Your task to perform on an android device: change your default location settings in chrome Image 0: 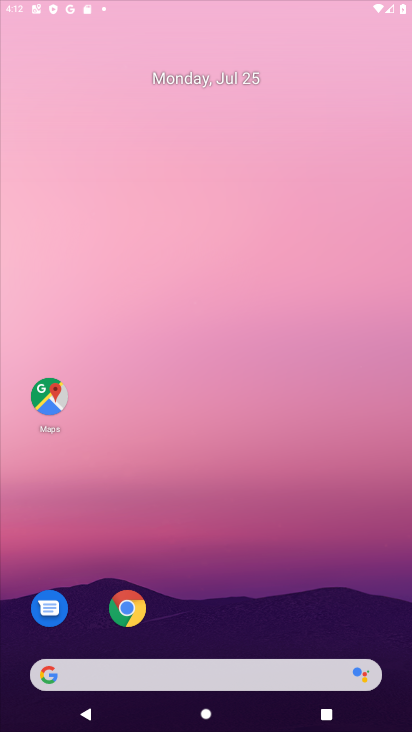
Step 0: press home button
Your task to perform on an android device: change your default location settings in chrome Image 1: 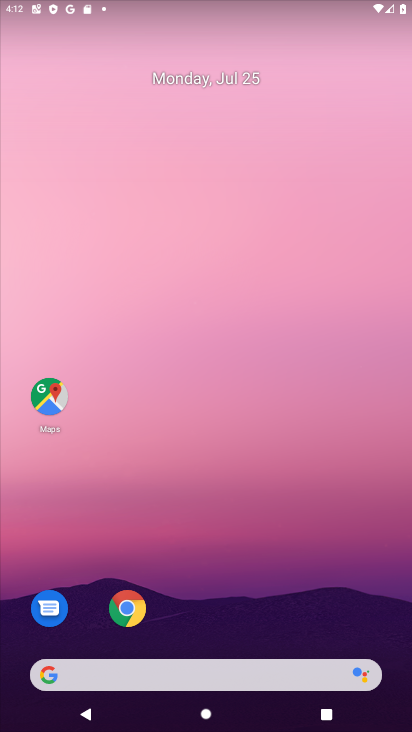
Step 1: click (126, 604)
Your task to perform on an android device: change your default location settings in chrome Image 2: 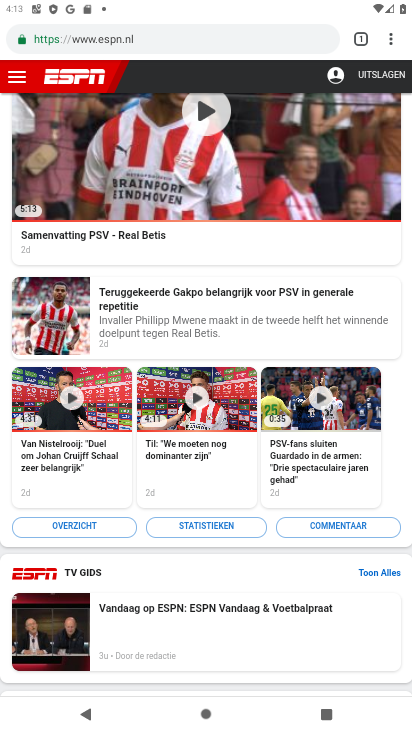
Step 2: click (389, 35)
Your task to perform on an android device: change your default location settings in chrome Image 3: 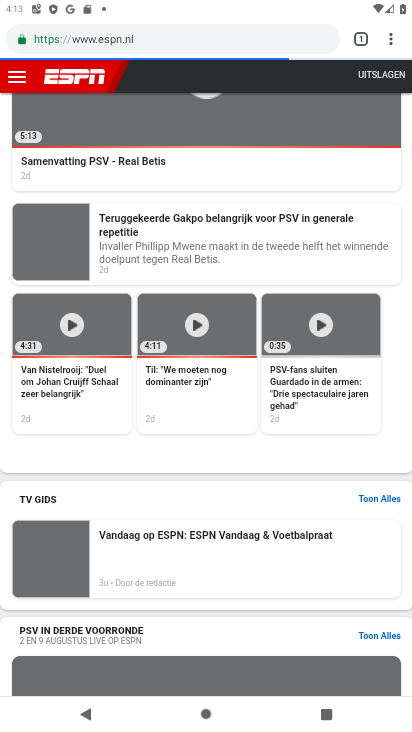
Step 3: click (392, 42)
Your task to perform on an android device: change your default location settings in chrome Image 4: 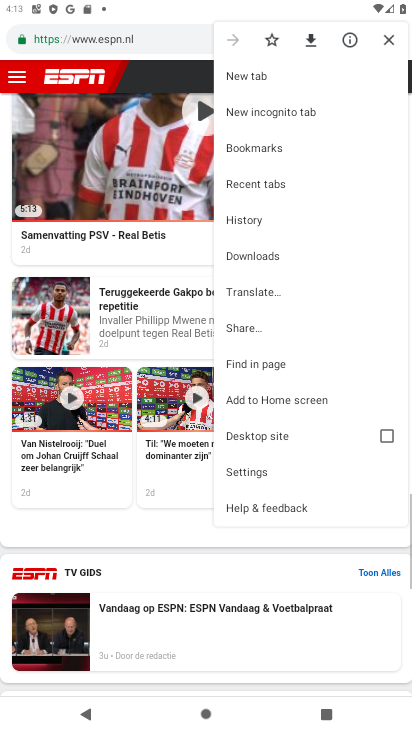
Step 4: click (278, 471)
Your task to perform on an android device: change your default location settings in chrome Image 5: 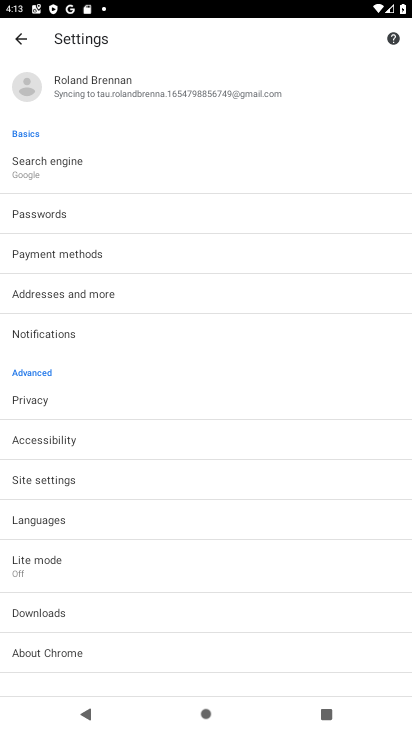
Step 5: click (80, 484)
Your task to perform on an android device: change your default location settings in chrome Image 6: 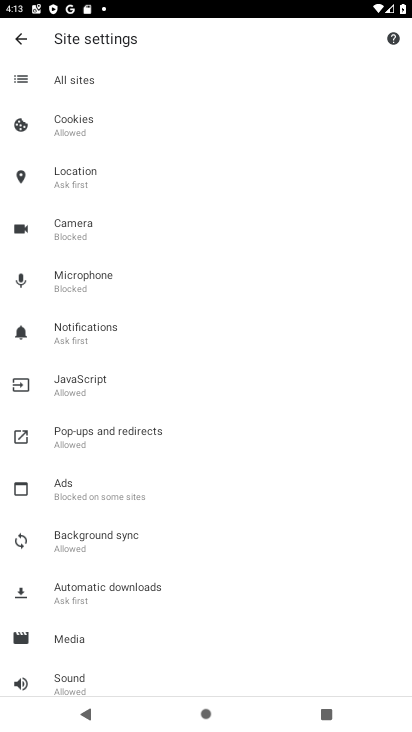
Step 6: click (107, 178)
Your task to perform on an android device: change your default location settings in chrome Image 7: 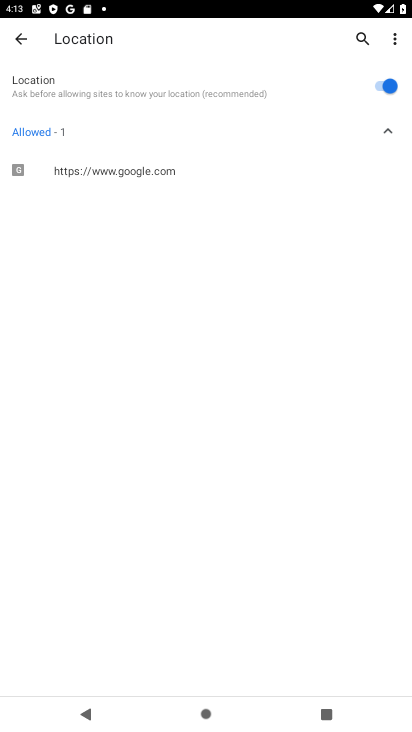
Step 7: click (385, 82)
Your task to perform on an android device: change your default location settings in chrome Image 8: 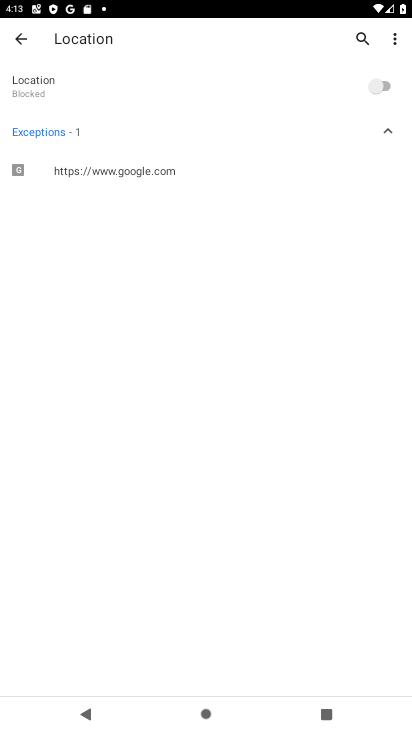
Step 8: task complete